Your task to perform on an android device: Open the calendar app, open the side menu, and click the "Day" option Image 0: 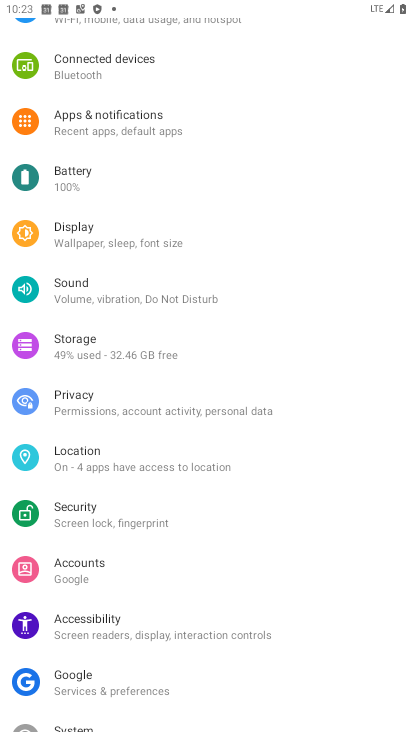
Step 0: press home button
Your task to perform on an android device: Open the calendar app, open the side menu, and click the "Day" option Image 1: 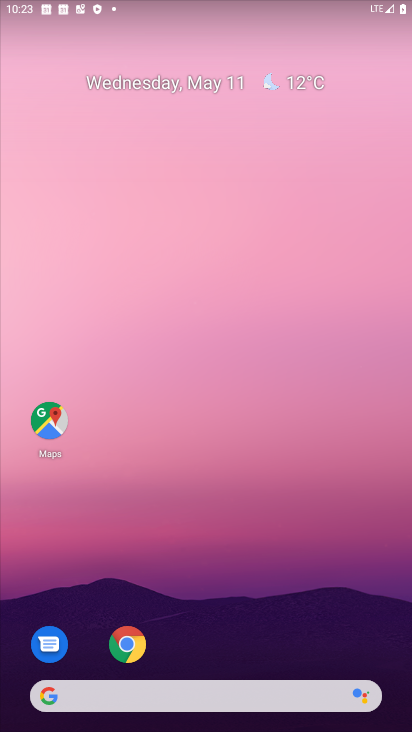
Step 1: drag from (220, 620) to (294, 85)
Your task to perform on an android device: Open the calendar app, open the side menu, and click the "Day" option Image 2: 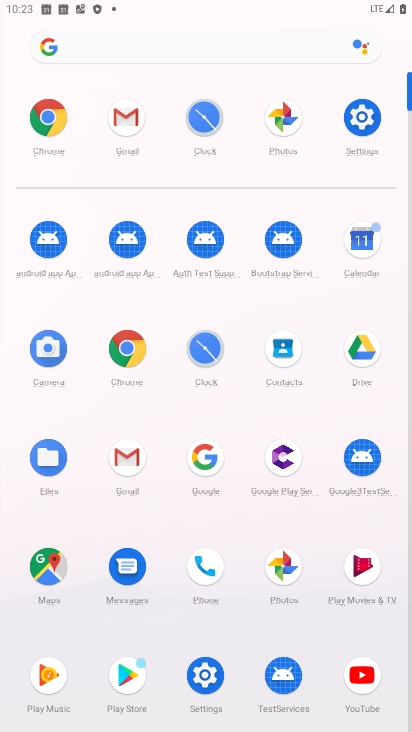
Step 2: click (354, 256)
Your task to perform on an android device: Open the calendar app, open the side menu, and click the "Day" option Image 3: 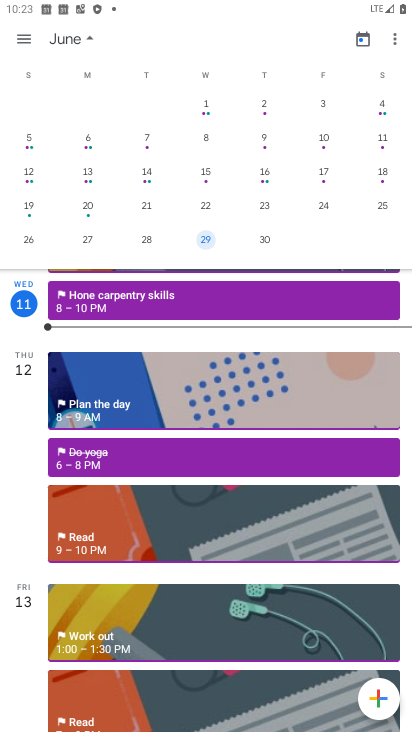
Step 3: click (26, 33)
Your task to perform on an android device: Open the calendar app, open the side menu, and click the "Day" option Image 4: 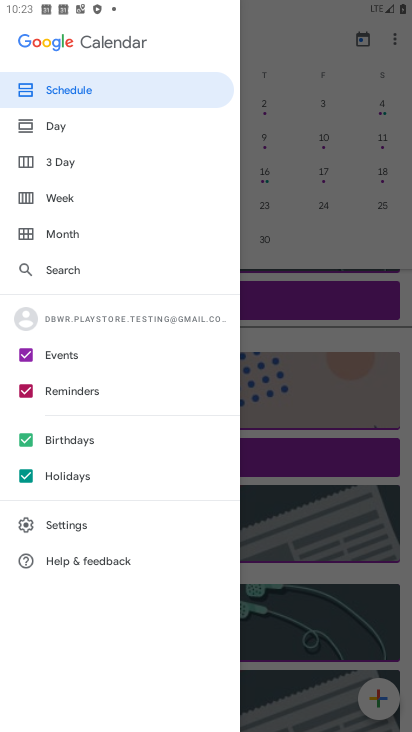
Step 4: click (62, 137)
Your task to perform on an android device: Open the calendar app, open the side menu, and click the "Day" option Image 5: 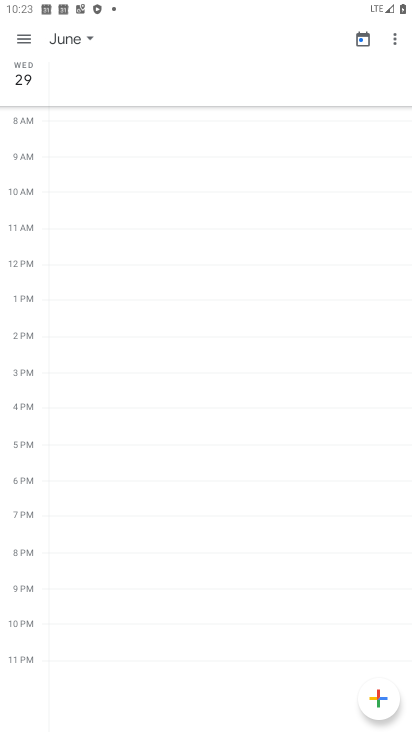
Step 5: task complete